Your task to perform on an android device: Search for vegetarian restaurants on Maps Image 0: 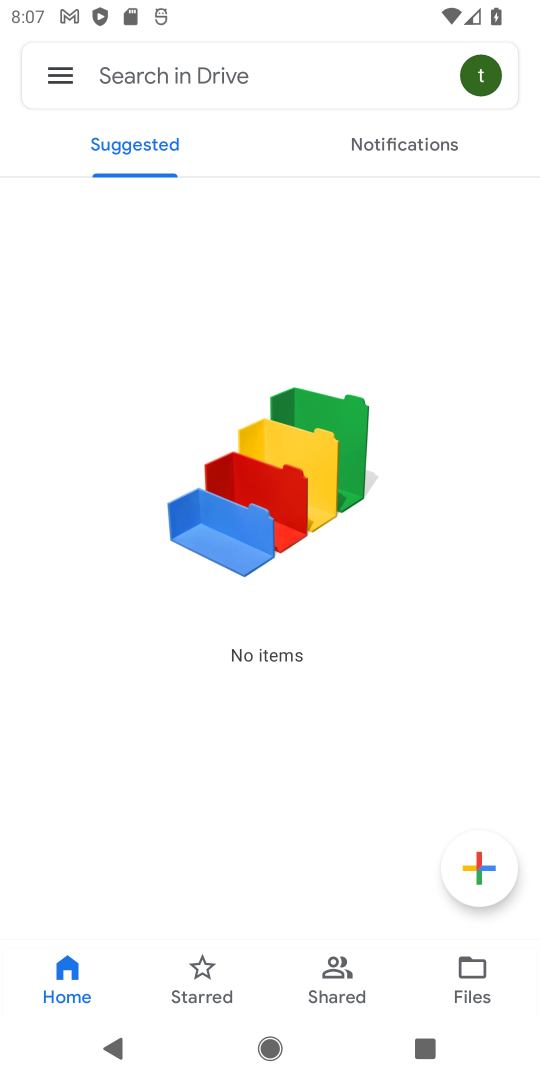
Step 0: press home button
Your task to perform on an android device: Search for vegetarian restaurants on Maps Image 1: 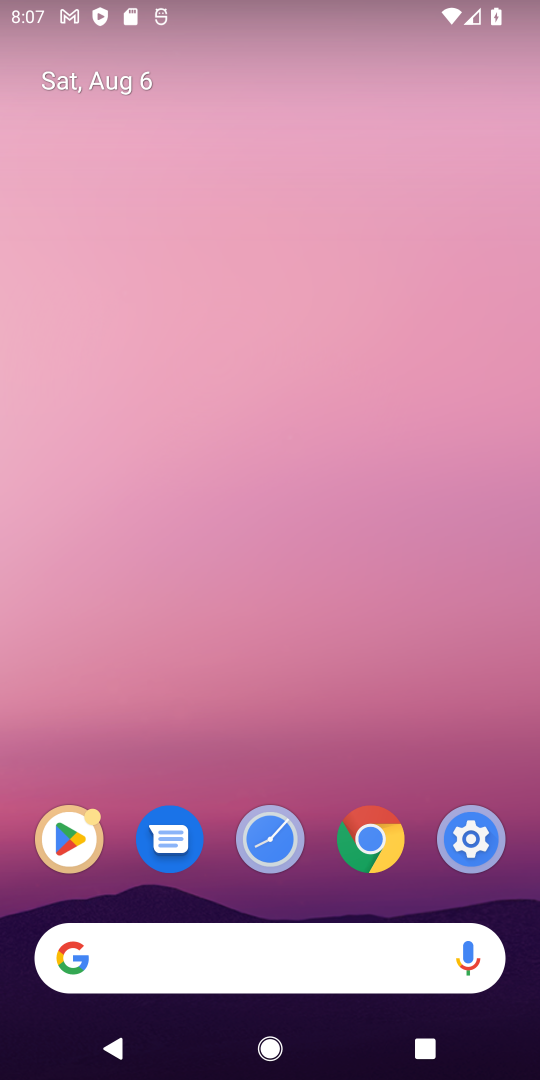
Step 1: drag from (284, 604) to (238, 298)
Your task to perform on an android device: Search for vegetarian restaurants on Maps Image 2: 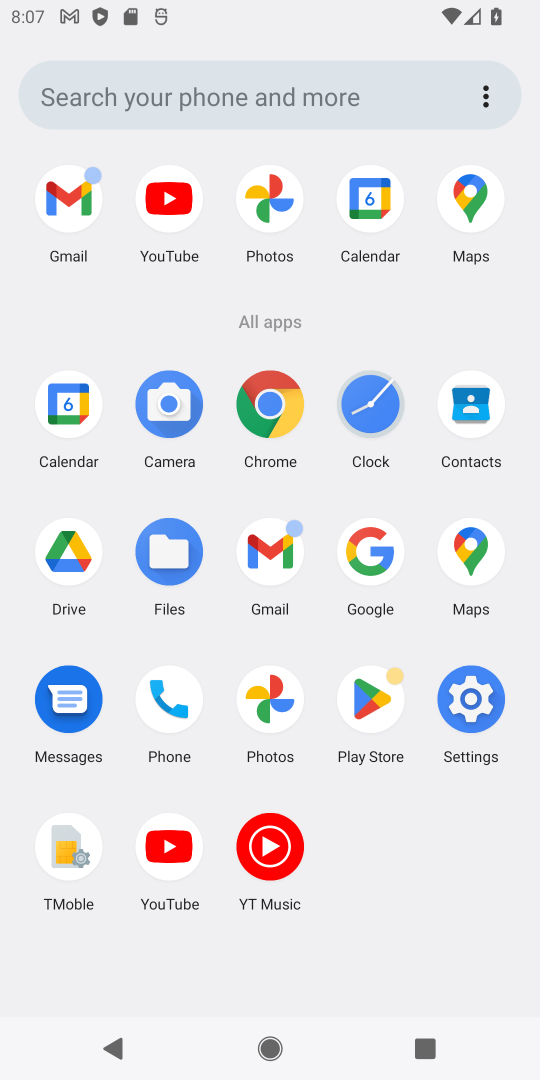
Step 2: click (449, 531)
Your task to perform on an android device: Search for vegetarian restaurants on Maps Image 3: 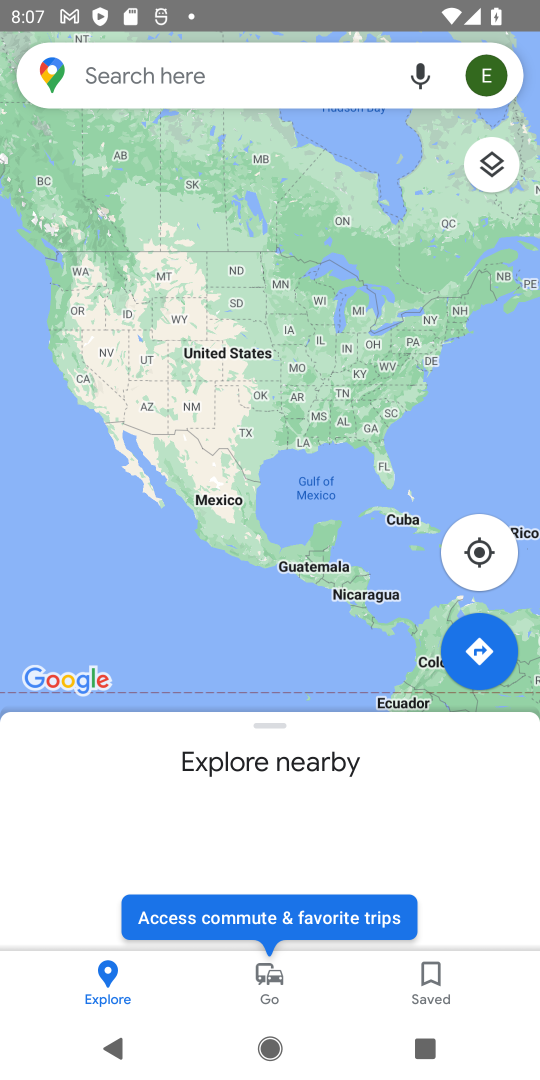
Step 3: click (209, 77)
Your task to perform on an android device: Search for vegetarian restaurants on Maps Image 4: 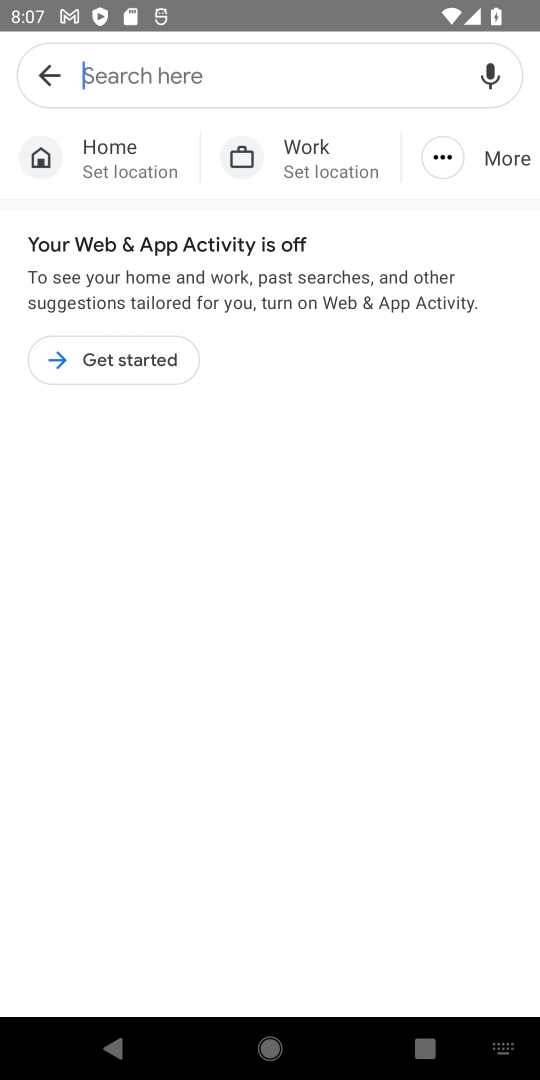
Step 4: type "vegetarian restaurant"
Your task to perform on an android device: Search for vegetarian restaurants on Maps Image 5: 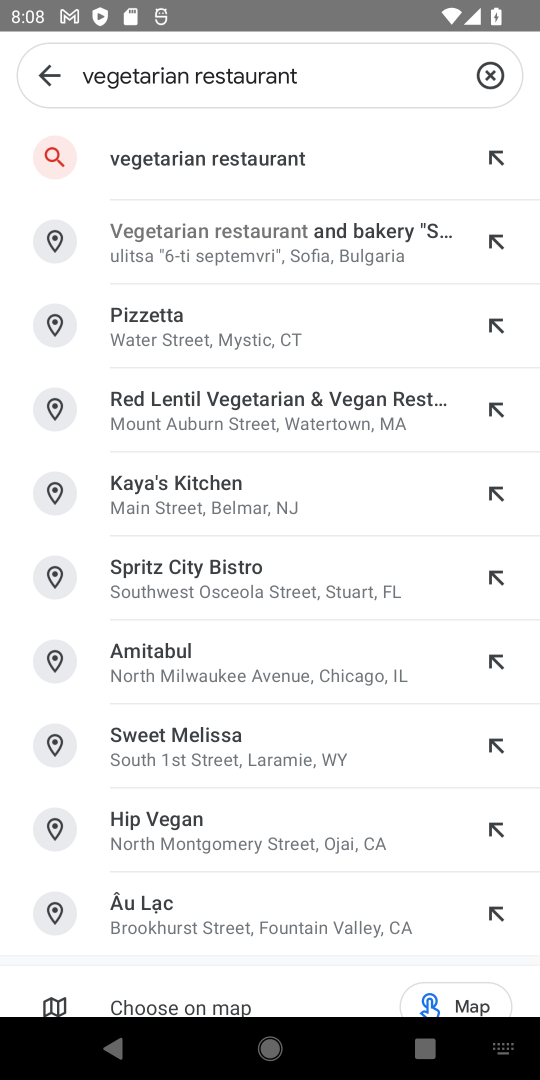
Step 5: click (374, 153)
Your task to perform on an android device: Search for vegetarian restaurants on Maps Image 6: 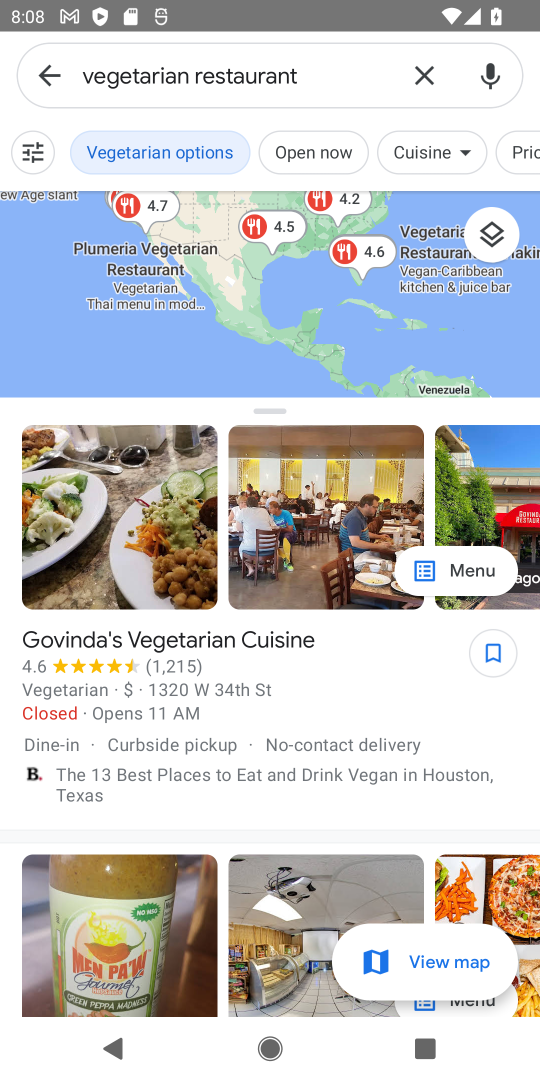
Step 6: task complete